Your task to perform on an android device: Open the web browser Image 0: 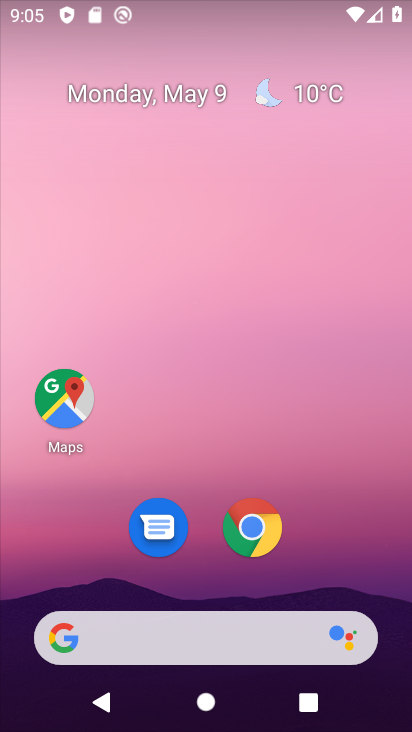
Step 0: click (247, 530)
Your task to perform on an android device: Open the web browser Image 1: 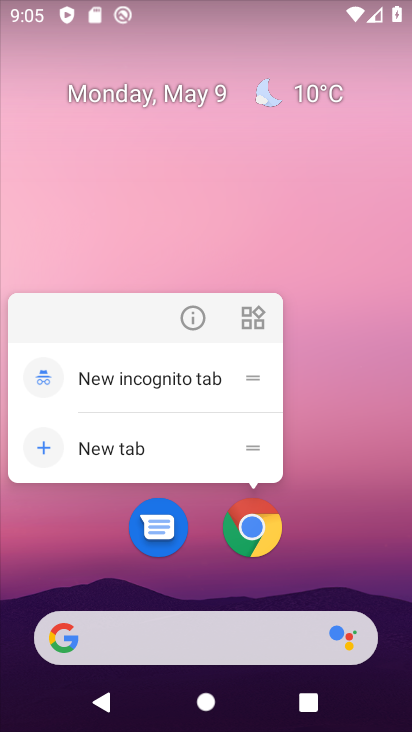
Step 1: click (247, 530)
Your task to perform on an android device: Open the web browser Image 2: 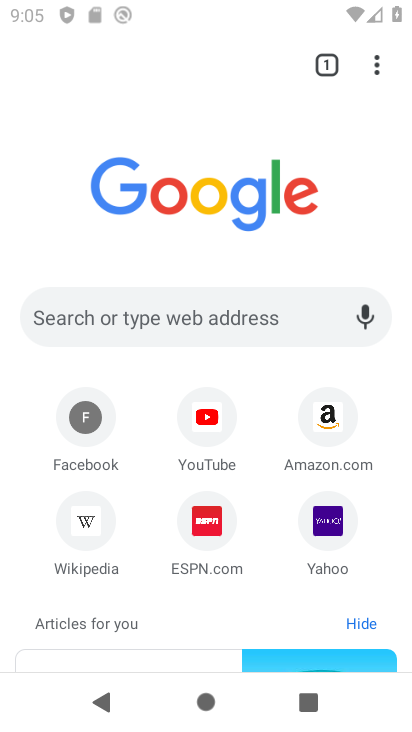
Step 2: click (247, 530)
Your task to perform on an android device: Open the web browser Image 3: 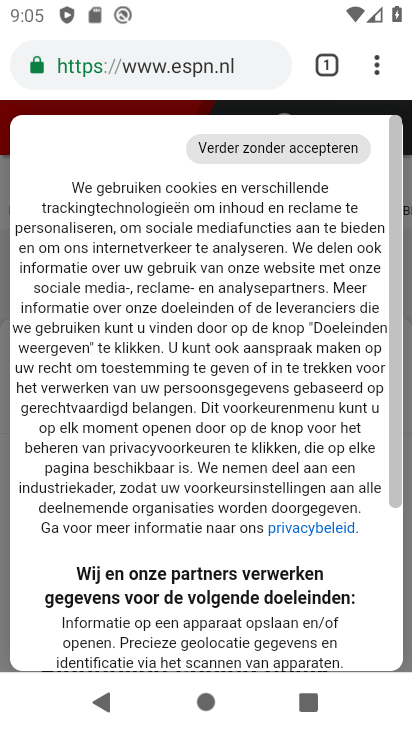
Step 3: click (247, 530)
Your task to perform on an android device: Open the web browser Image 4: 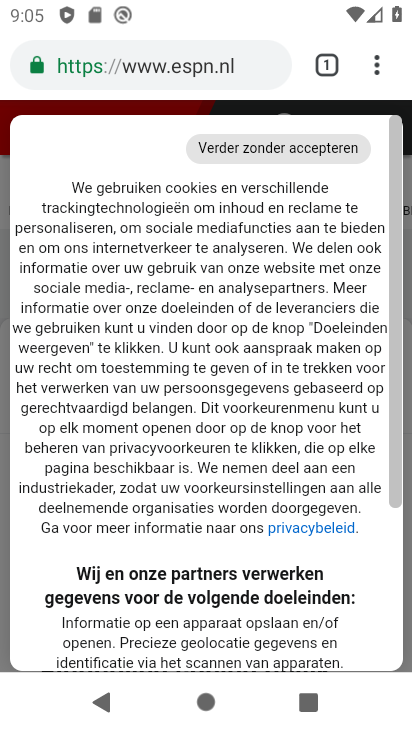
Step 4: task complete